Your task to perform on an android device: Find coffee shops on Maps Image 0: 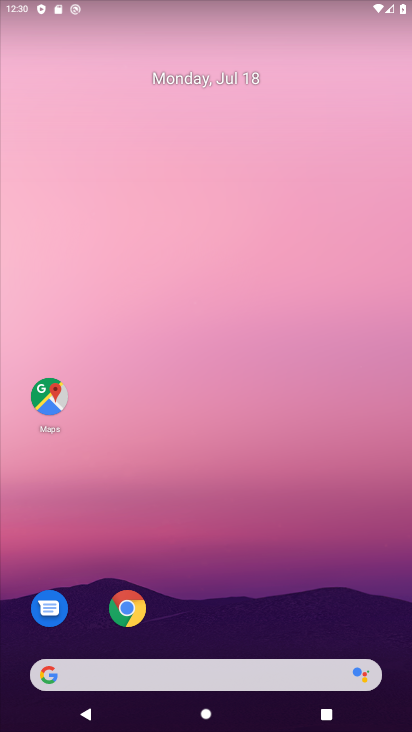
Step 0: click (51, 397)
Your task to perform on an android device: Find coffee shops on Maps Image 1: 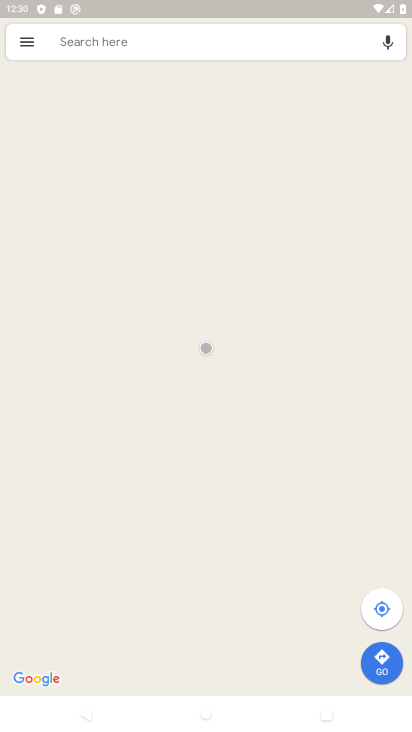
Step 1: click (181, 36)
Your task to perform on an android device: Find coffee shops on Maps Image 2: 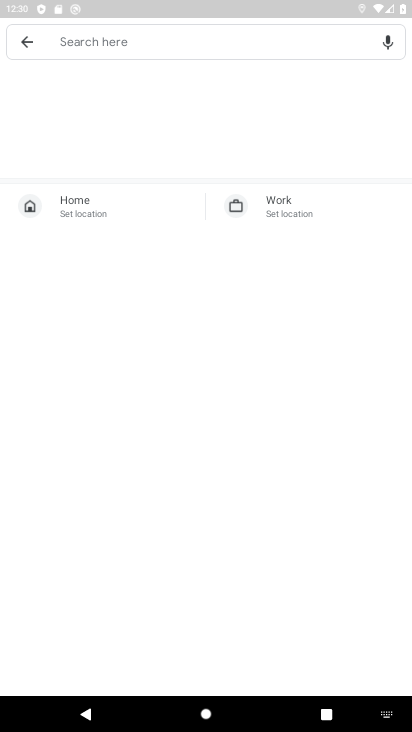
Step 2: type "coffee shops"
Your task to perform on an android device: Find coffee shops on Maps Image 3: 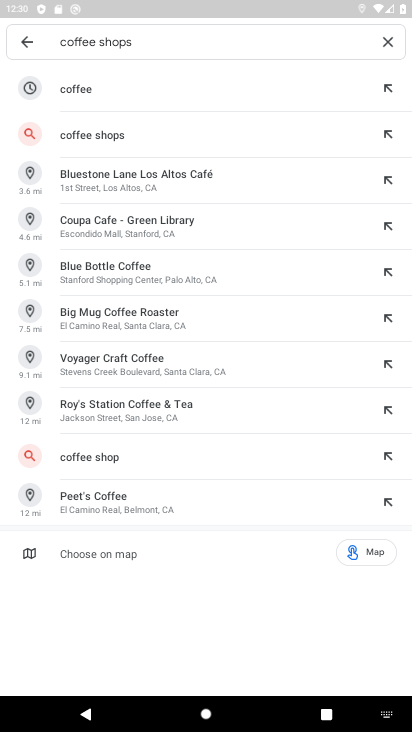
Step 3: click (173, 139)
Your task to perform on an android device: Find coffee shops on Maps Image 4: 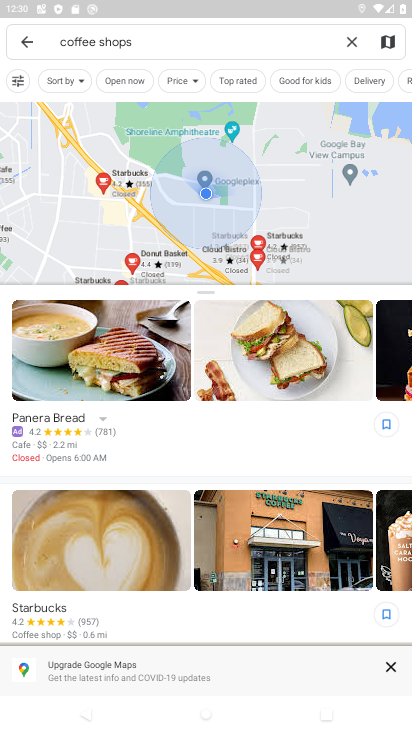
Step 4: task complete